Your task to perform on an android device: Go to wifi settings Image 0: 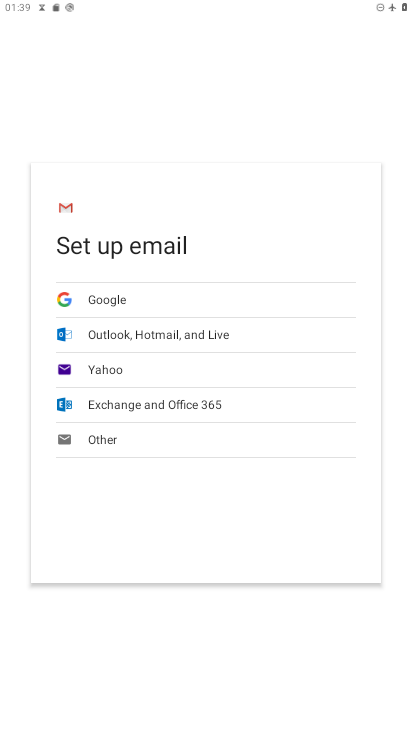
Step 0: press home button
Your task to perform on an android device: Go to wifi settings Image 1: 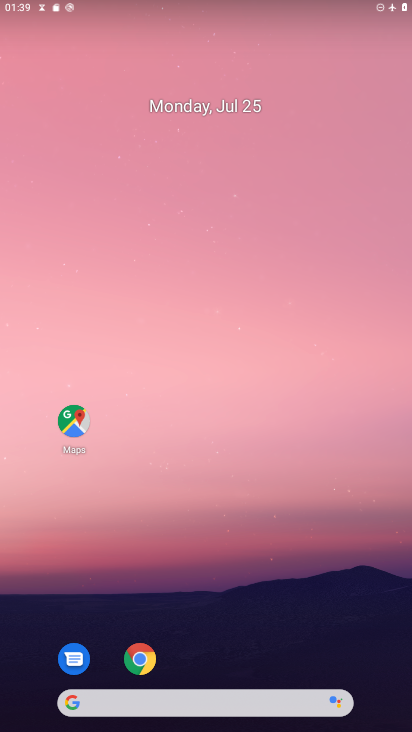
Step 1: drag from (214, 643) to (231, 209)
Your task to perform on an android device: Go to wifi settings Image 2: 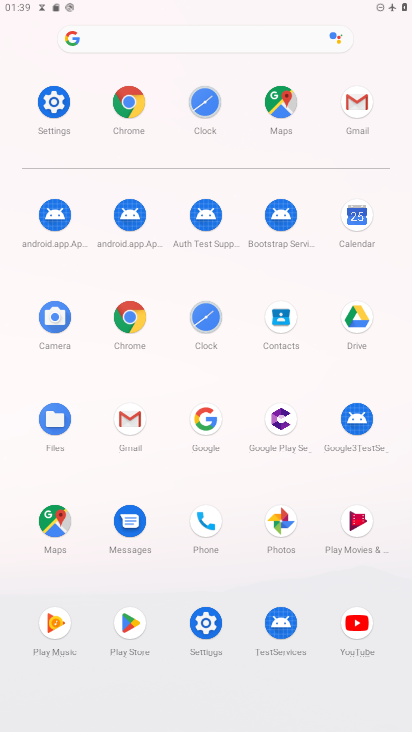
Step 2: click (55, 104)
Your task to perform on an android device: Go to wifi settings Image 3: 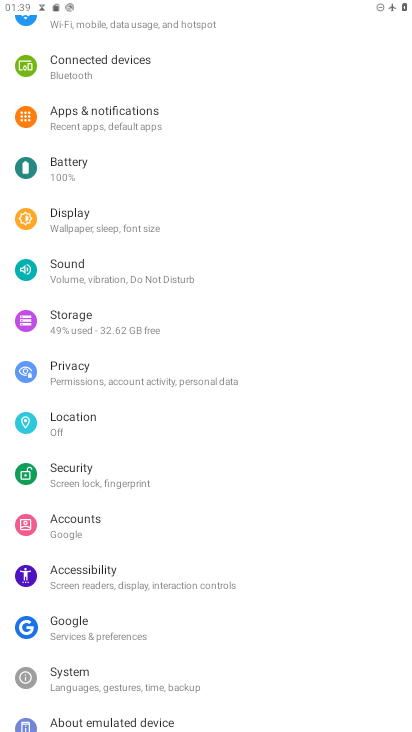
Step 3: click (117, 679)
Your task to perform on an android device: Go to wifi settings Image 4: 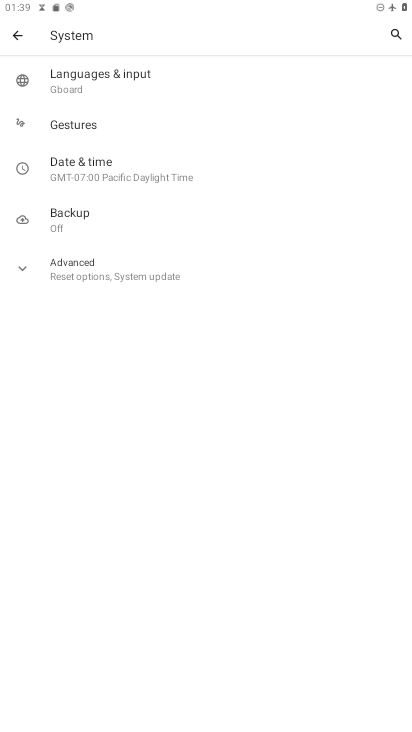
Step 4: drag from (142, 112) to (170, 515)
Your task to perform on an android device: Go to wifi settings Image 5: 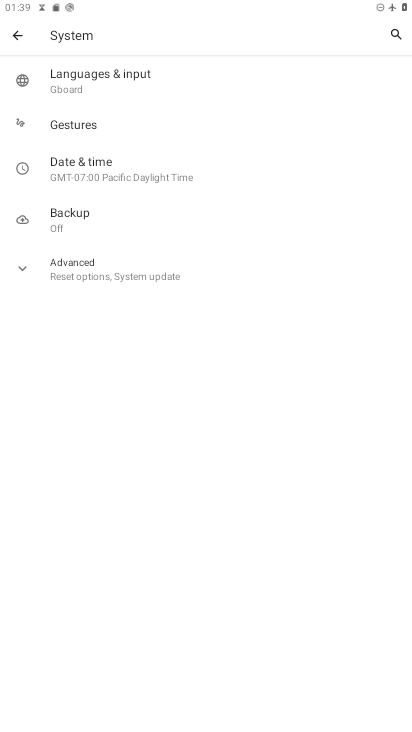
Step 5: click (22, 40)
Your task to perform on an android device: Go to wifi settings Image 6: 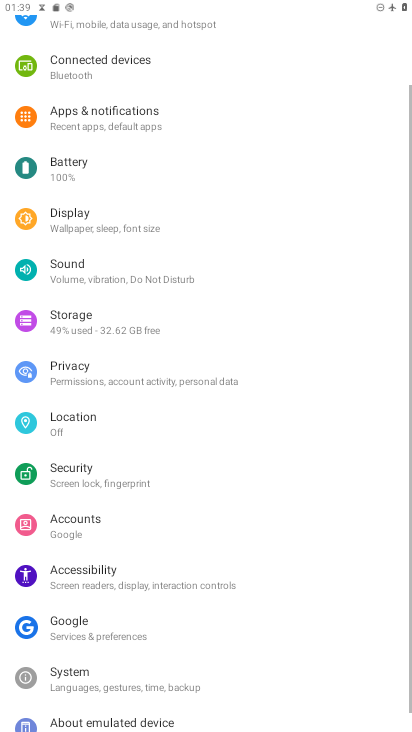
Step 6: drag from (210, 133) to (208, 482)
Your task to perform on an android device: Go to wifi settings Image 7: 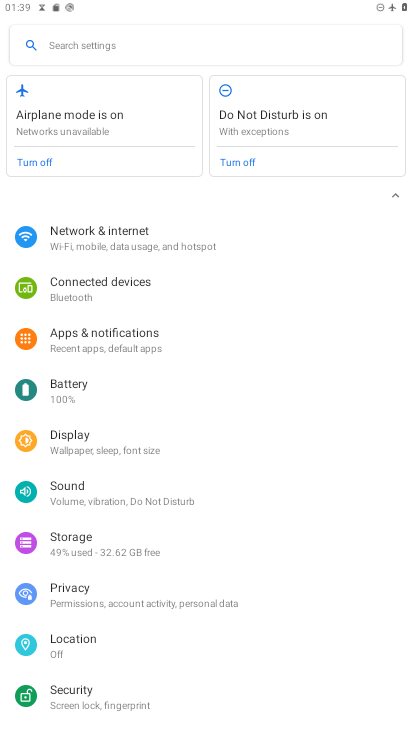
Step 7: click (164, 237)
Your task to perform on an android device: Go to wifi settings Image 8: 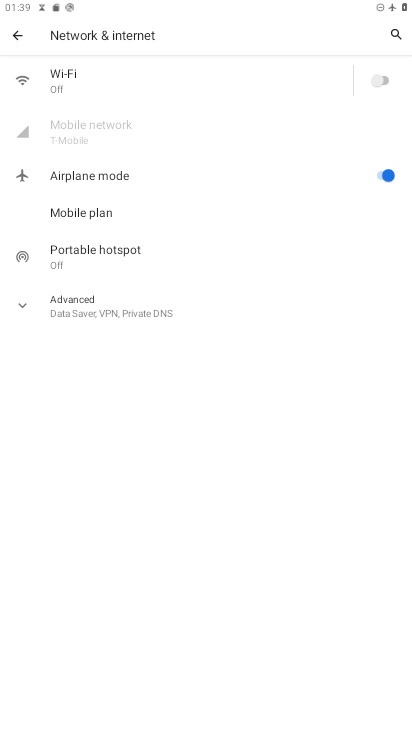
Step 8: click (85, 77)
Your task to perform on an android device: Go to wifi settings Image 9: 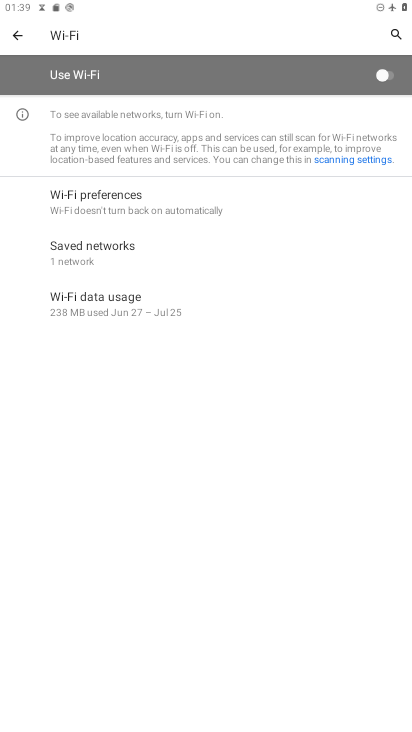
Step 9: click (378, 73)
Your task to perform on an android device: Go to wifi settings Image 10: 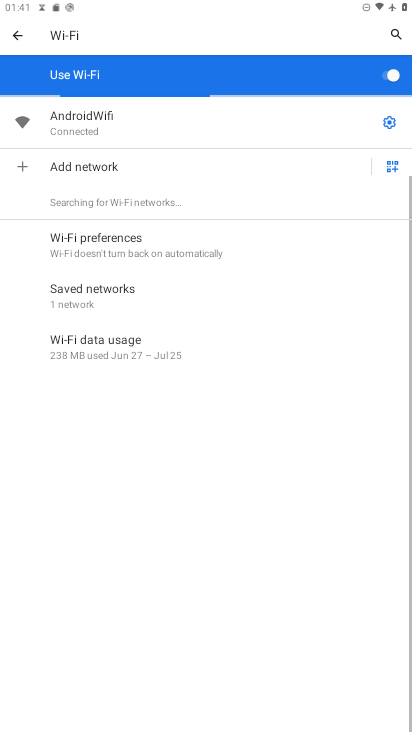
Step 10: task complete